Your task to perform on an android device: turn on the 12-hour format for clock Image 0: 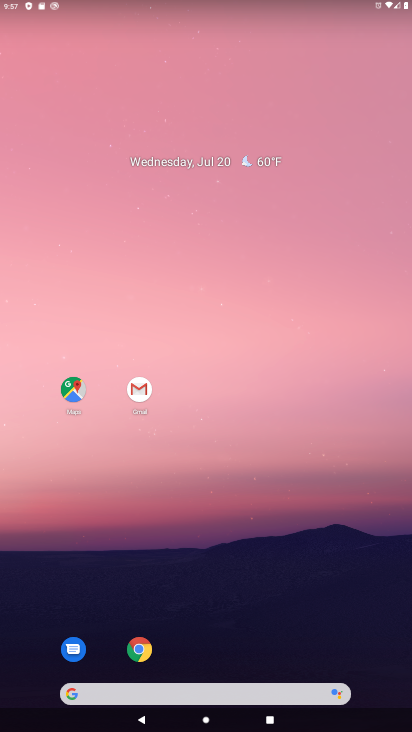
Step 0: drag from (380, 712) to (277, 349)
Your task to perform on an android device: turn on the 12-hour format for clock Image 1: 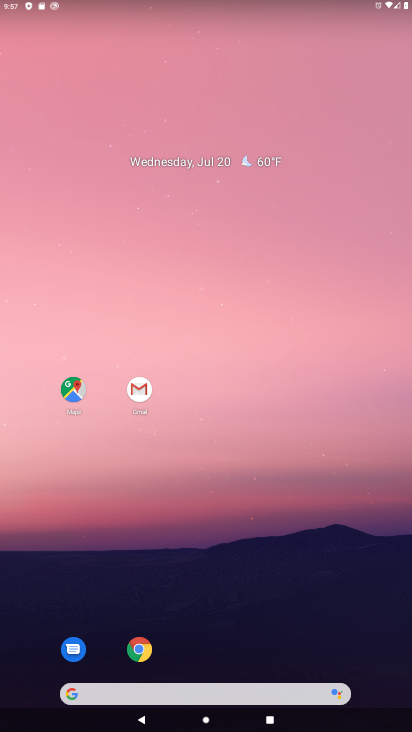
Step 1: drag from (374, 624) to (274, 25)
Your task to perform on an android device: turn on the 12-hour format for clock Image 2: 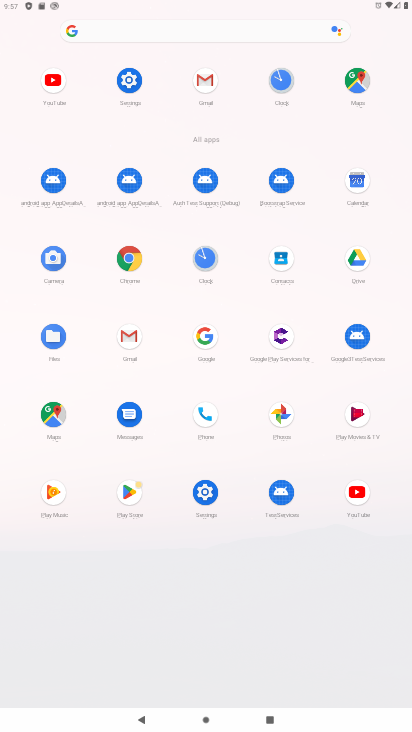
Step 2: click (203, 250)
Your task to perform on an android device: turn on the 12-hour format for clock Image 3: 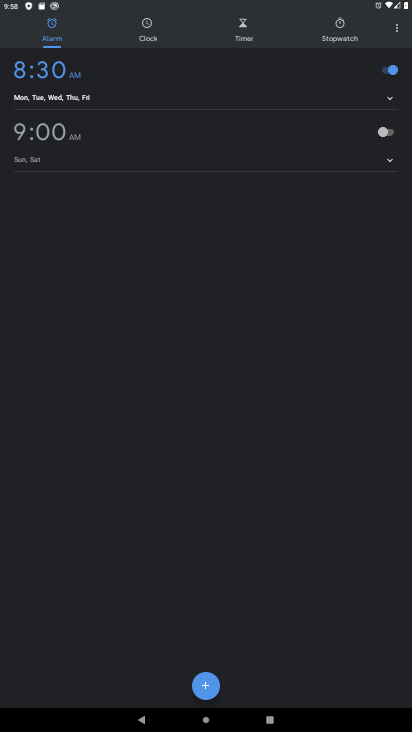
Step 3: click (402, 29)
Your task to perform on an android device: turn on the 12-hour format for clock Image 4: 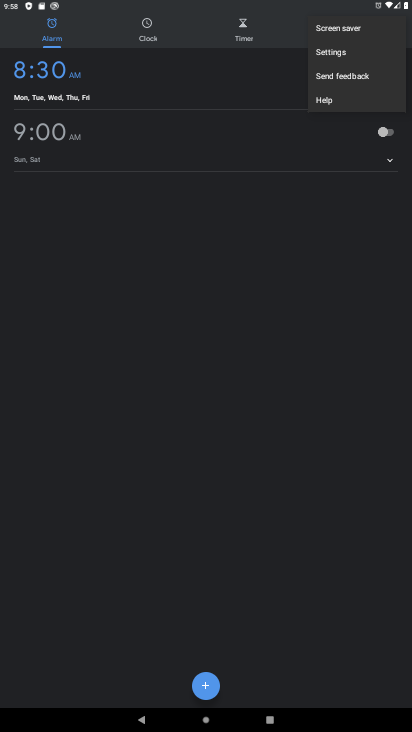
Step 4: click (340, 58)
Your task to perform on an android device: turn on the 12-hour format for clock Image 5: 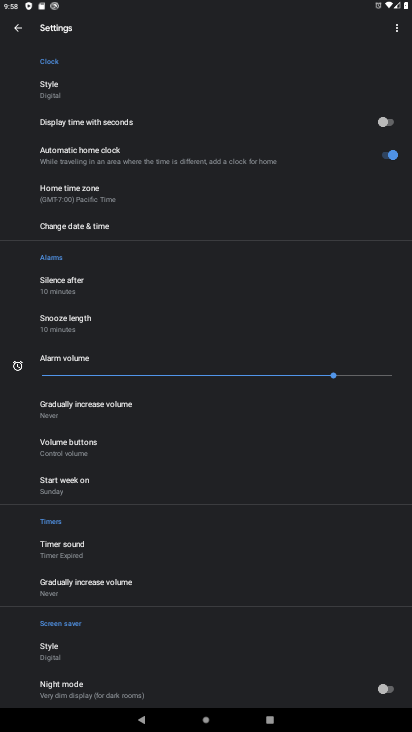
Step 5: click (83, 226)
Your task to perform on an android device: turn on the 12-hour format for clock Image 6: 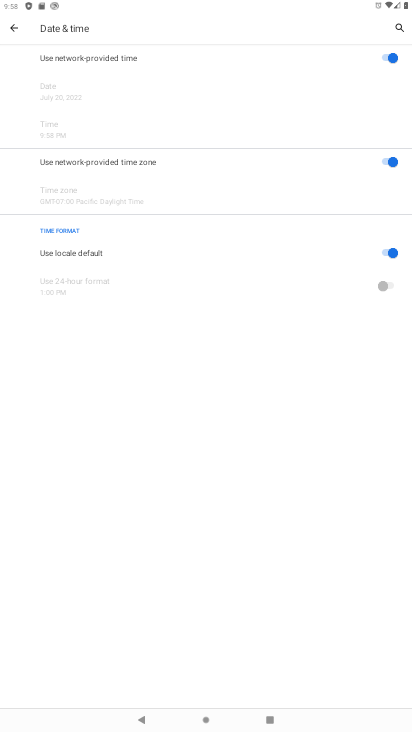
Step 6: click (378, 254)
Your task to perform on an android device: turn on the 12-hour format for clock Image 7: 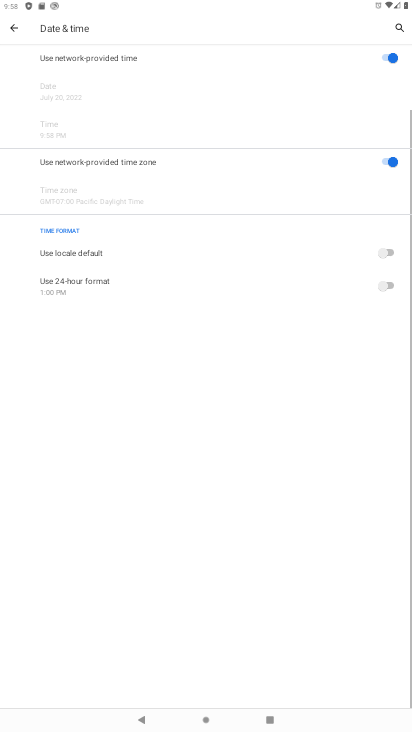
Step 7: click (386, 285)
Your task to perform on an android device: turn on the 12-hour format for clock Image 8: 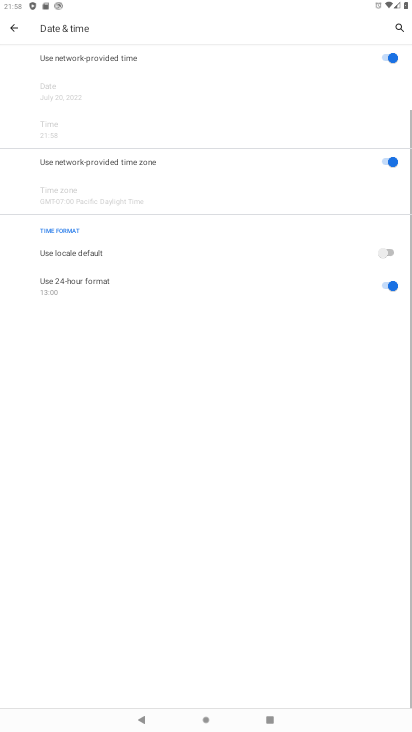
Step 8: task complete